Your task to perform on an android device: turn off wifi Image 0: 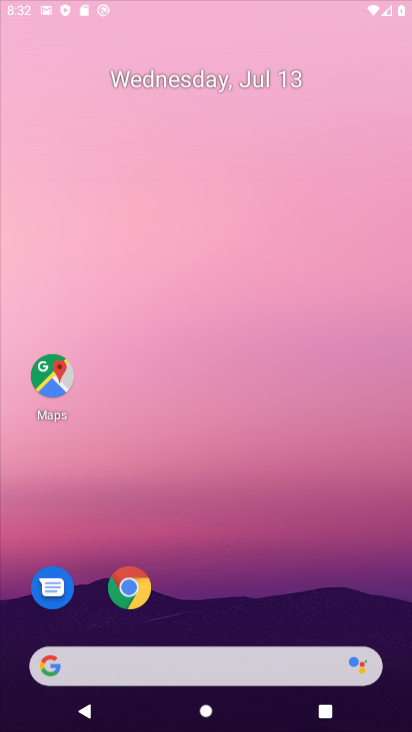
Step 0: click (282, 182)
Your task to perform on an android device: turn off wifi Image 1: 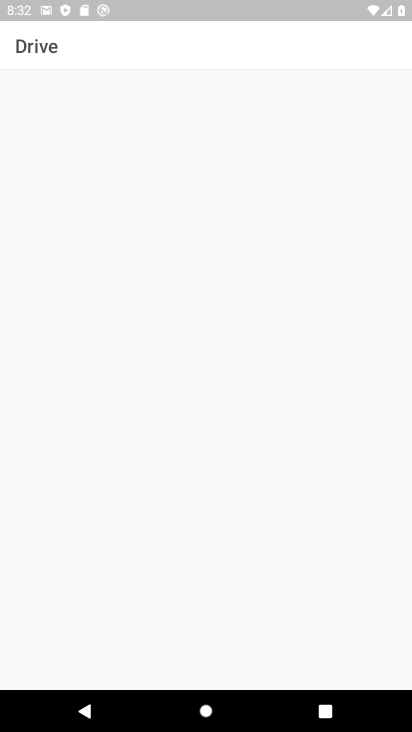
Step 1: press home button
Your task to perform on an android device: turn off wifi Image 2: 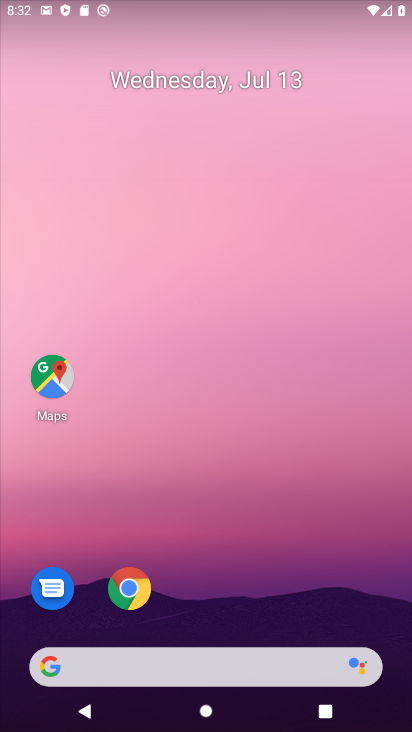
Step 2: drag from (255, 598) to (253, 85)
Your task to perform on an android device: turn off wifi Image 3: 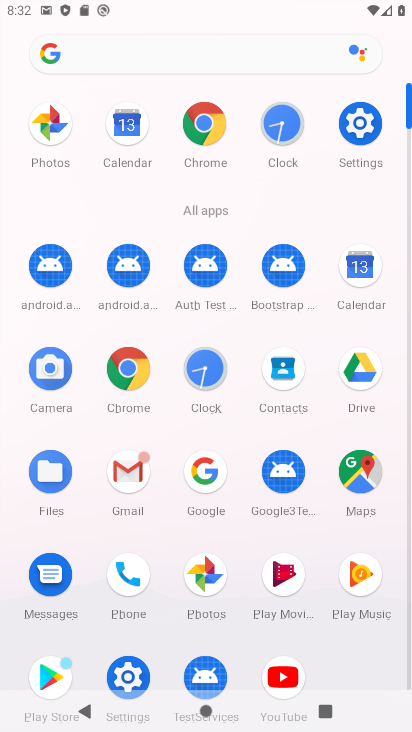
Step 3: click (359, 114)
Your task to perform on an android device: turn off wifi Image 4: 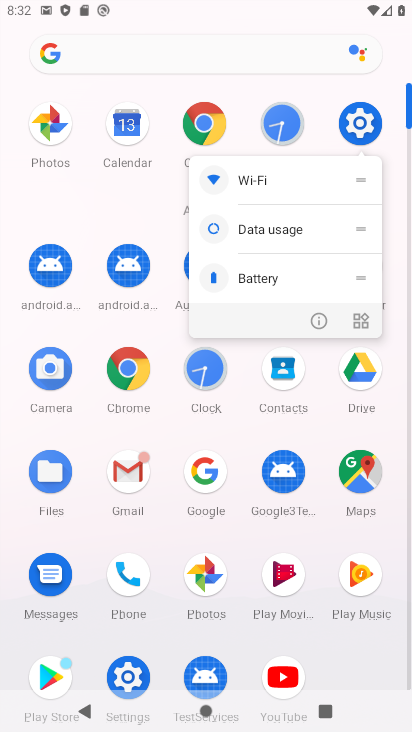
Step 4: click (353, 118)
Your task to perform on an android device: turn off wifi Image 5: 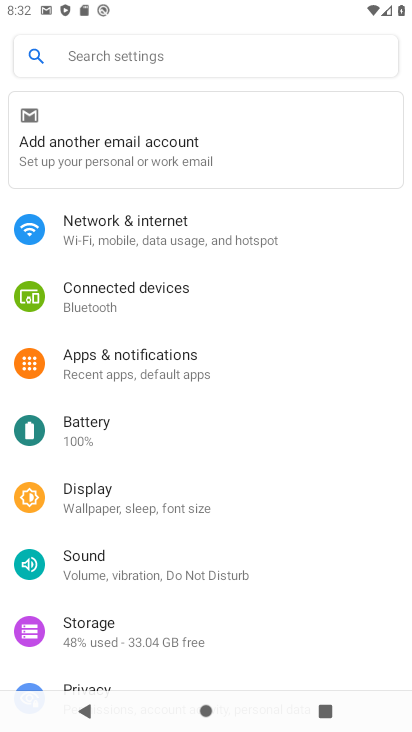
Step 5: click (177, 222)
Your task to perform on an android device: turn off wifi Image 6: 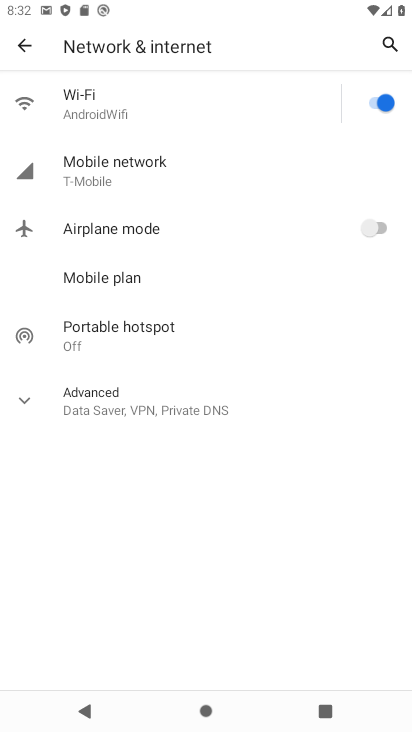
Step 6: click (377, 104)
Your task to perform on an android device: turn off wifi Image 7: 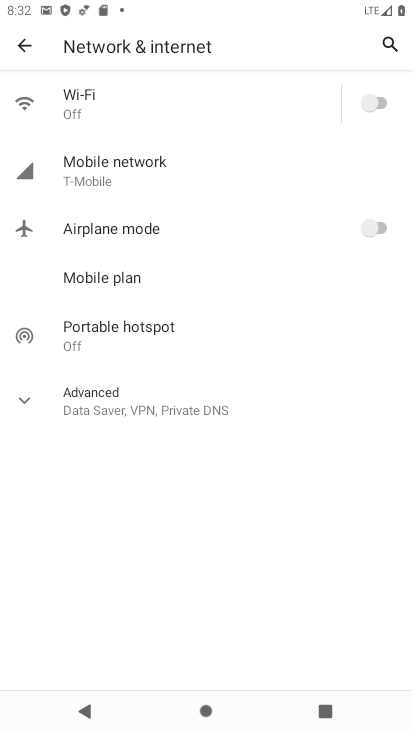
Step 7: task complete